Your task to perform on an android device: When is my next meeting? Image 0: 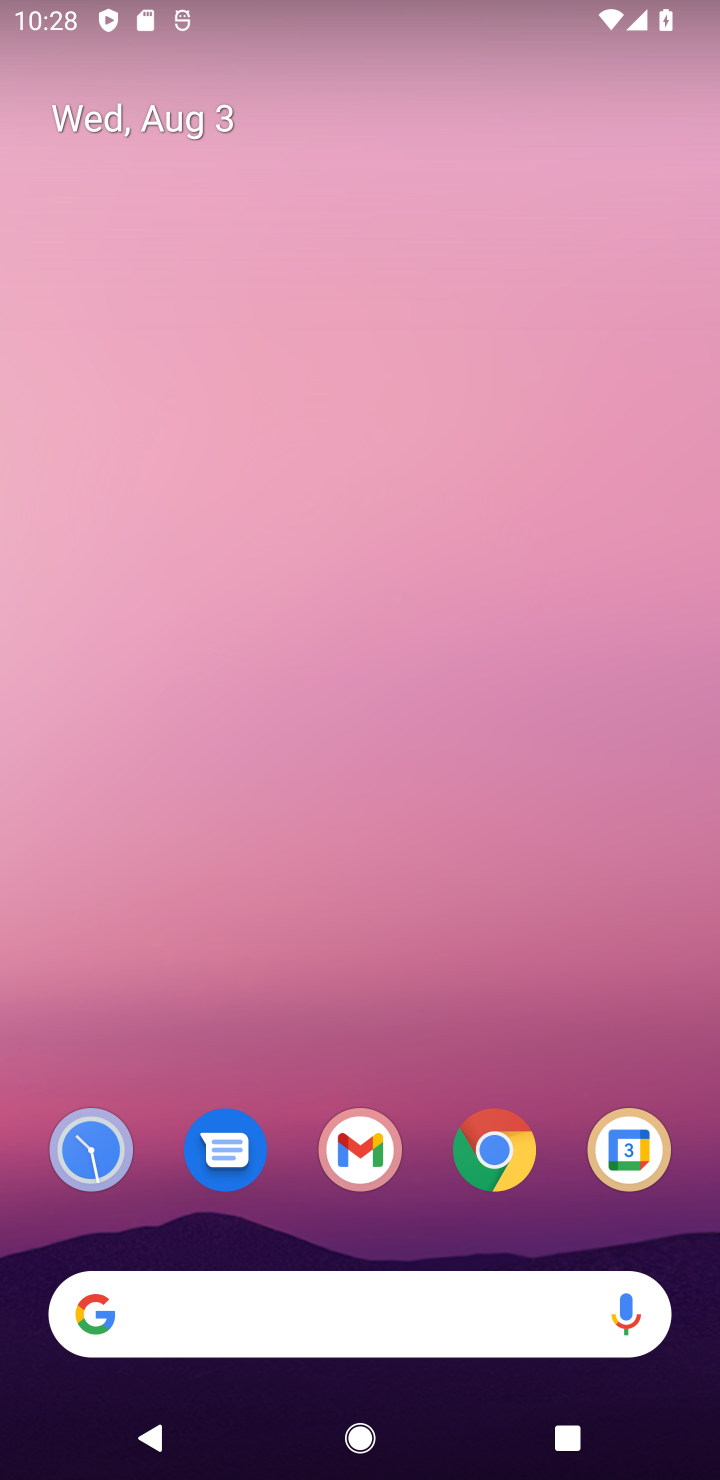
Step 0: drag from (489, 1013) to (453, 166)
Your task to perform on an android device: When is my next meeting? Image 1: 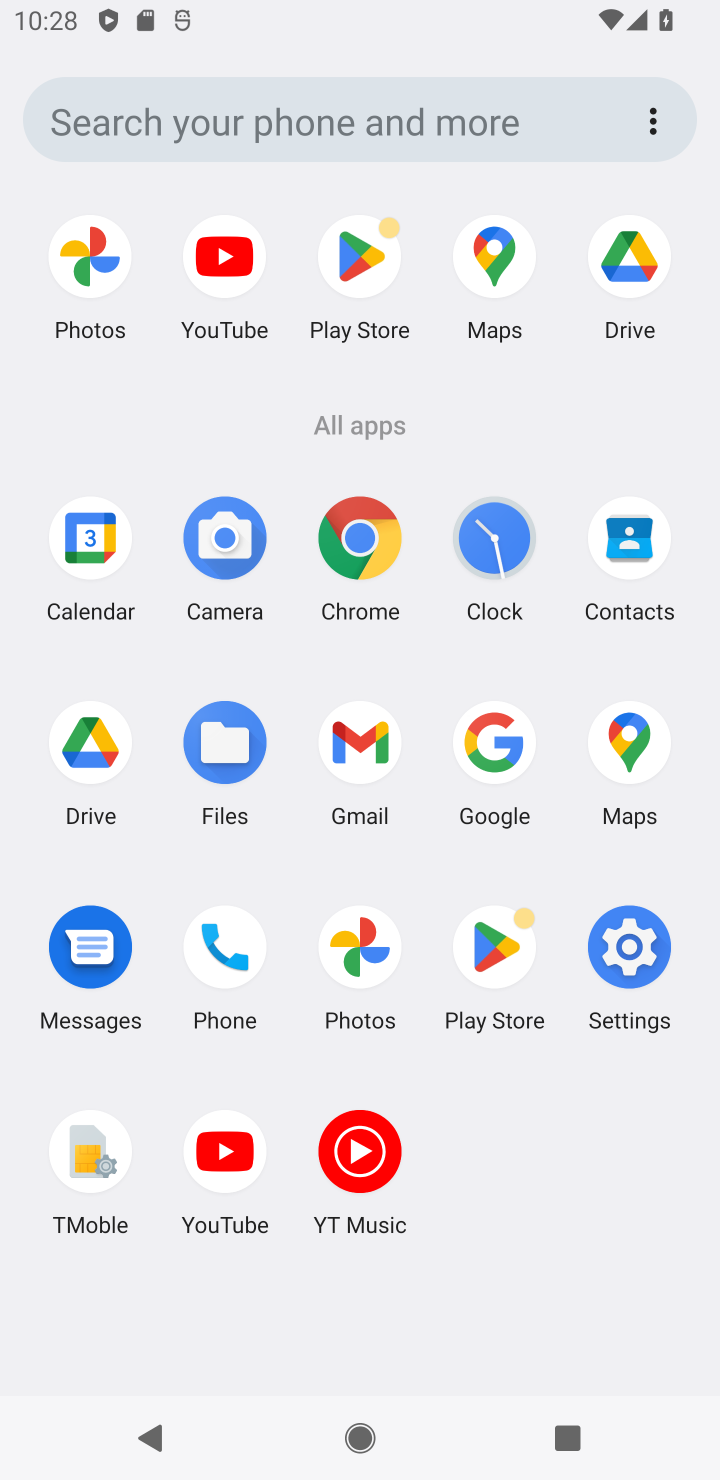
Step 1: click (84, 555)
Your task to perform on an android device: When is my next meeting? Image 2: 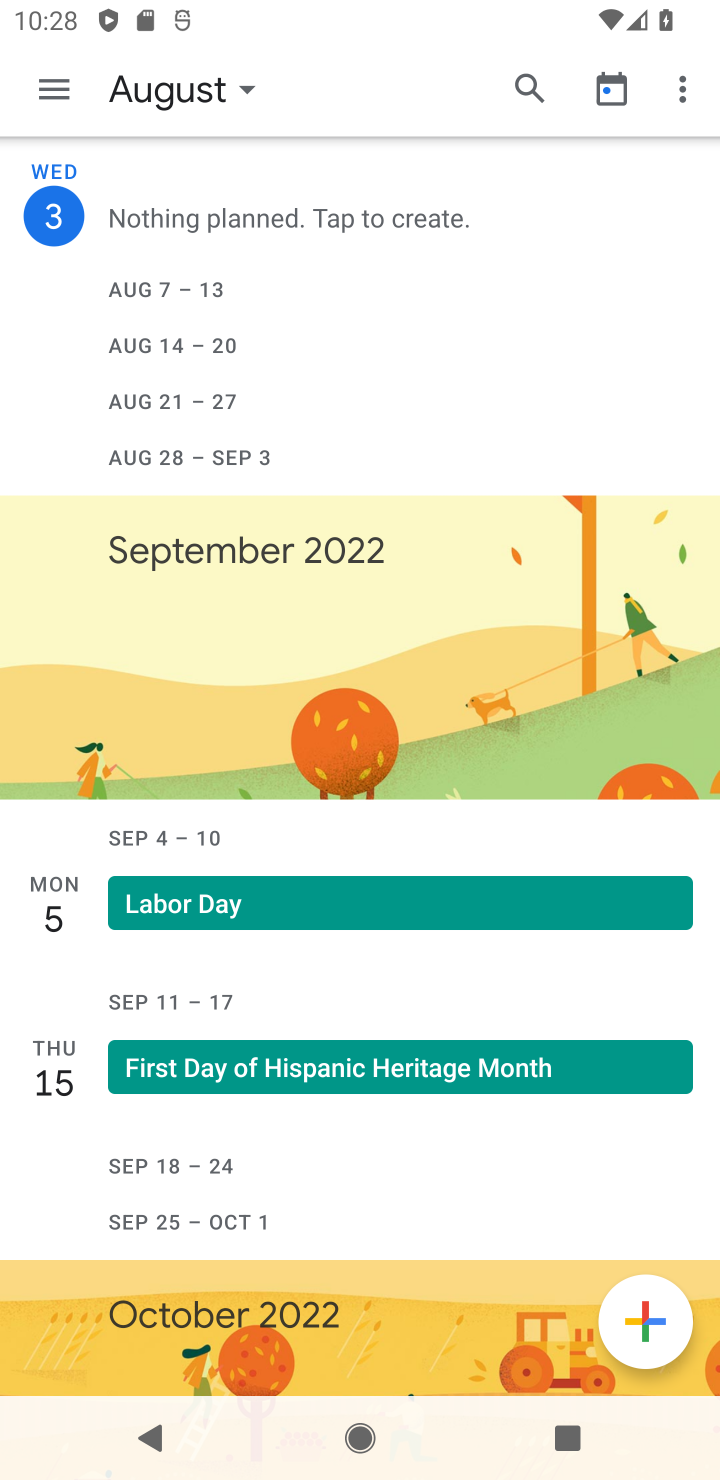
Step 2: task complete